Your task to perform on an android device: check google app version Image 0: 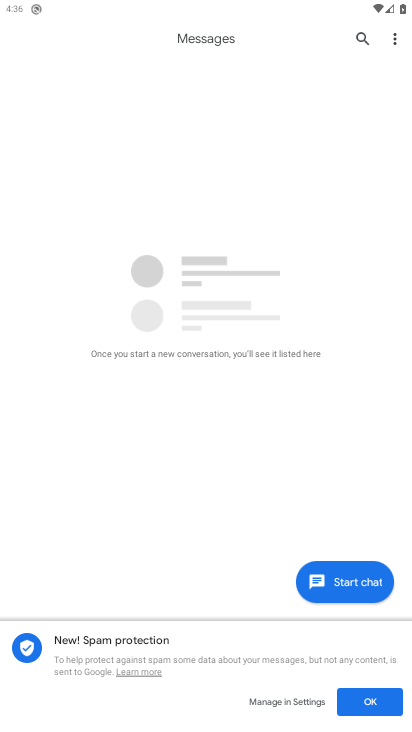
Step 0: press home button
Your task to perform on an android device: check google app version Image 1: 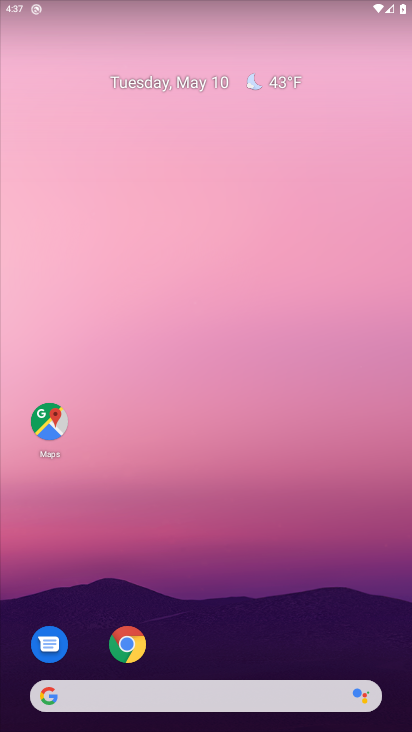
Step 1: drag from (178, 680) to (208, 283)
Your task to perform on an android device: check google app version Image 2: 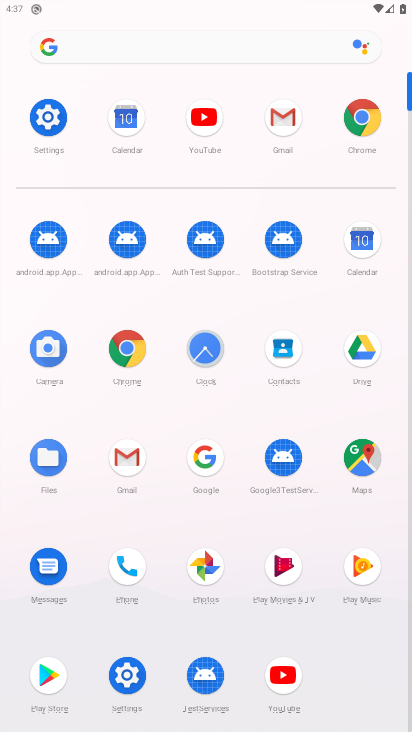
Step 2: click (206, 446)
Your task to perform on an android device: check google app version Image 3: 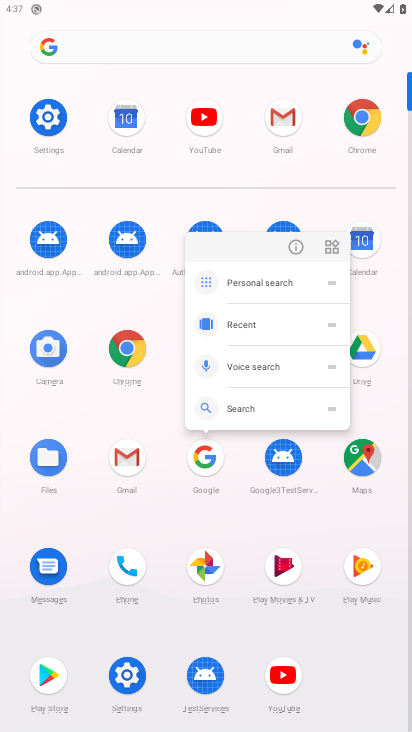
Step 3: click (295, 245)
Your task to perform on an android device: check google app version Image 4: 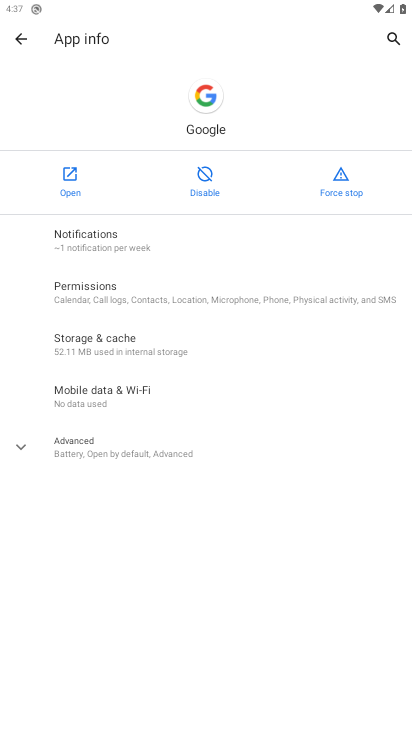
Step 4: click (88, 445)
Your task to perform on an android device: check google app version Image 5: 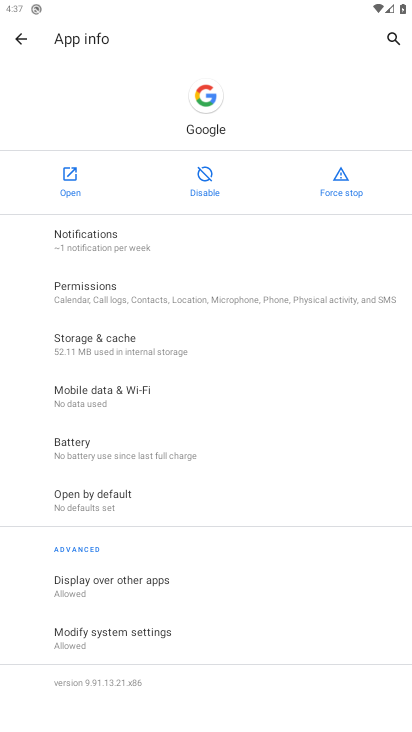
Step 5: task complete